Your task to perform on an android device: uninstall "Facebook" Image 0: 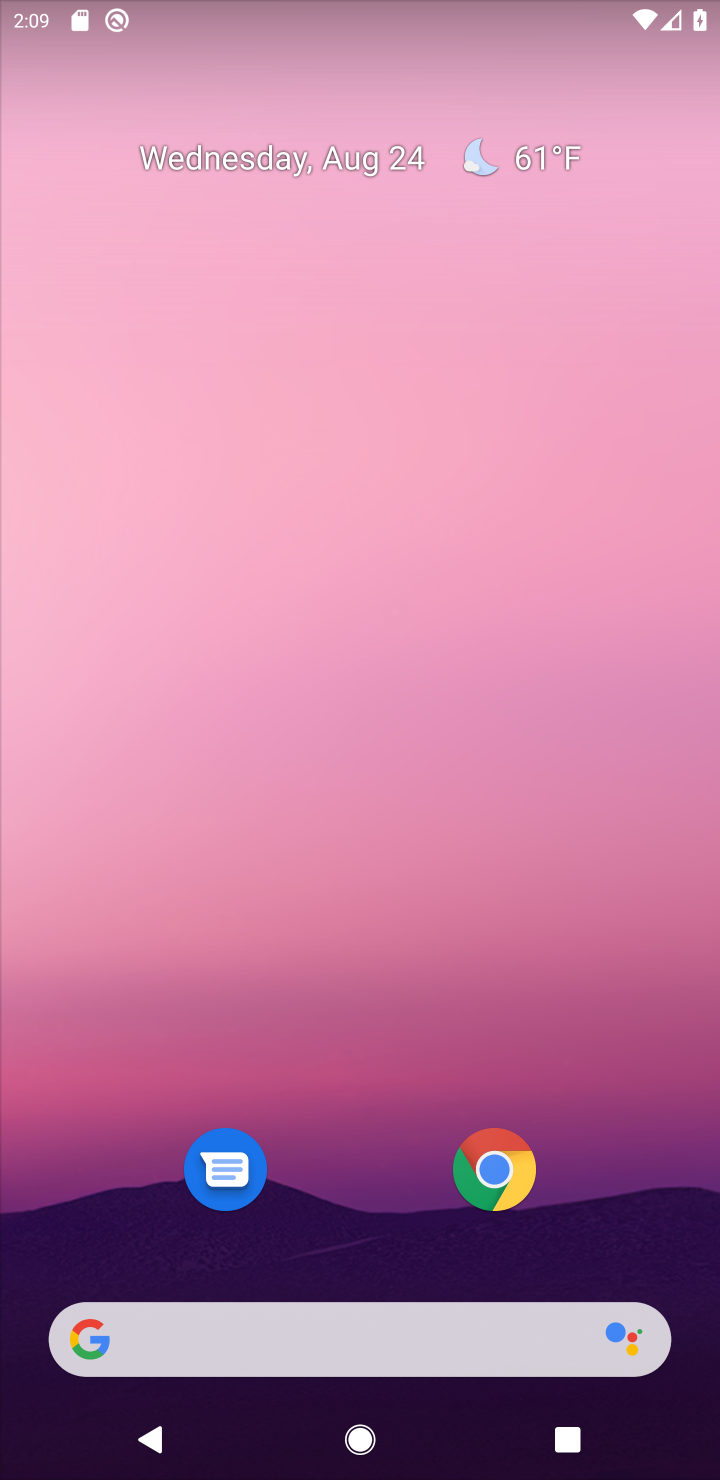
Step 0: drag from (363, 1210) to (512, 246)
Your task to perform on an android device: uninstall "Facebook" Image 1: 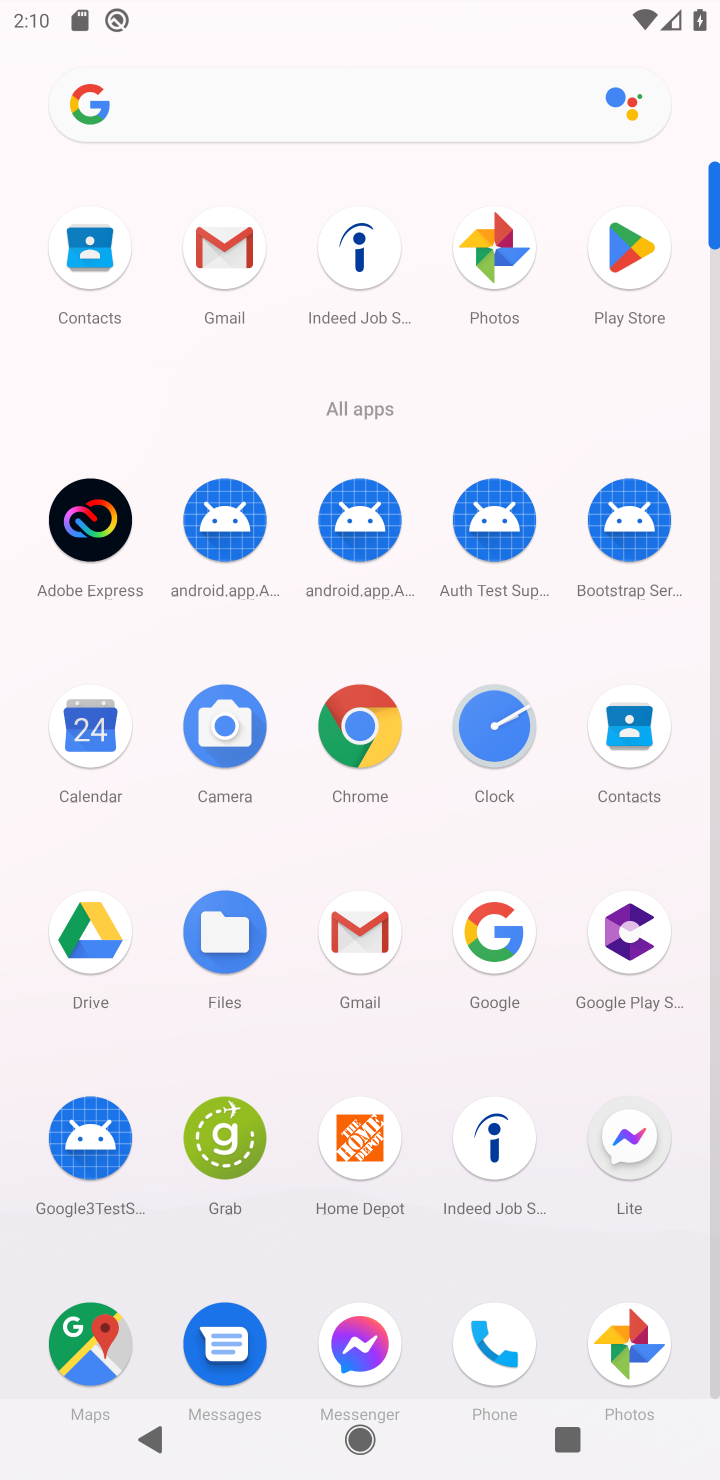
Step 1: click (616, 263)
Your task to perform on an android device: uninstall "Facebook" Image 2: 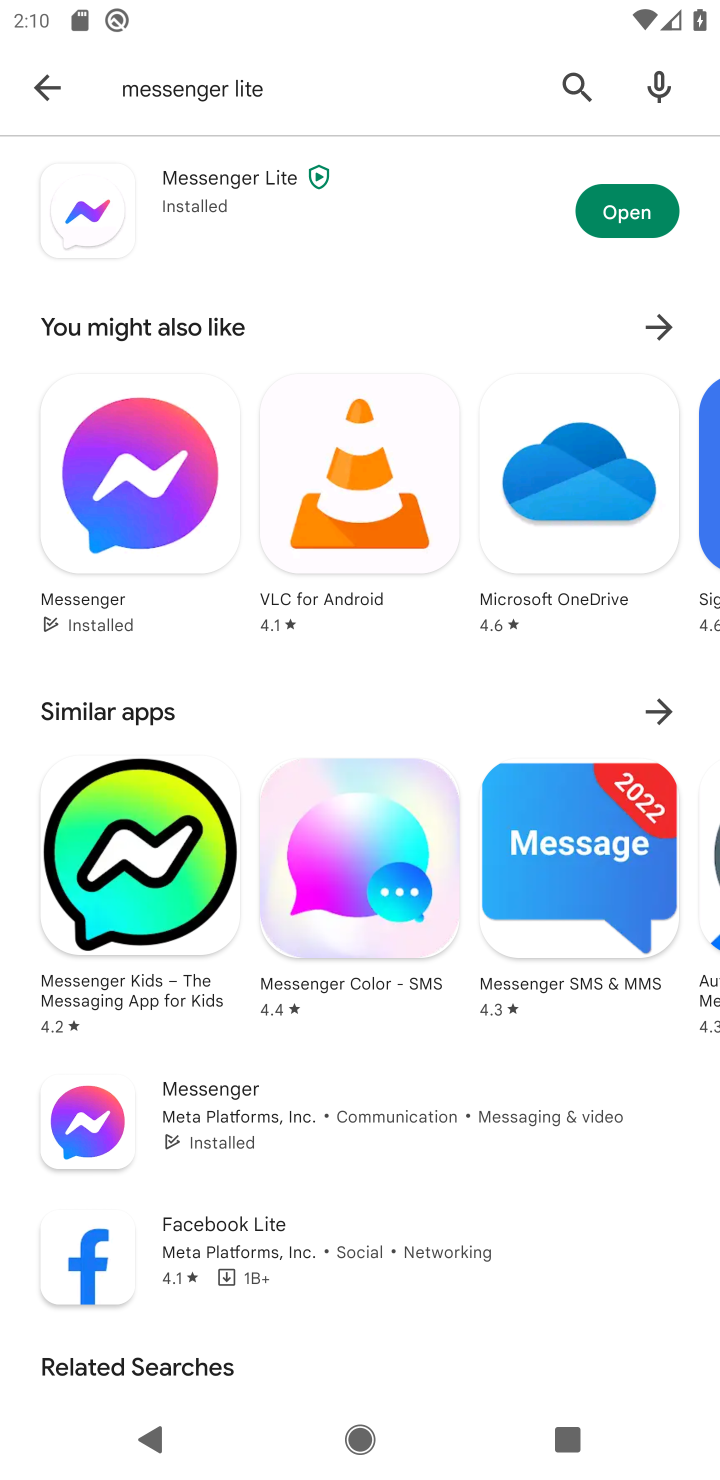
Step 2: click (578, 70)
Your task to perform on an android device: uninstall "Facebook" Image 3: 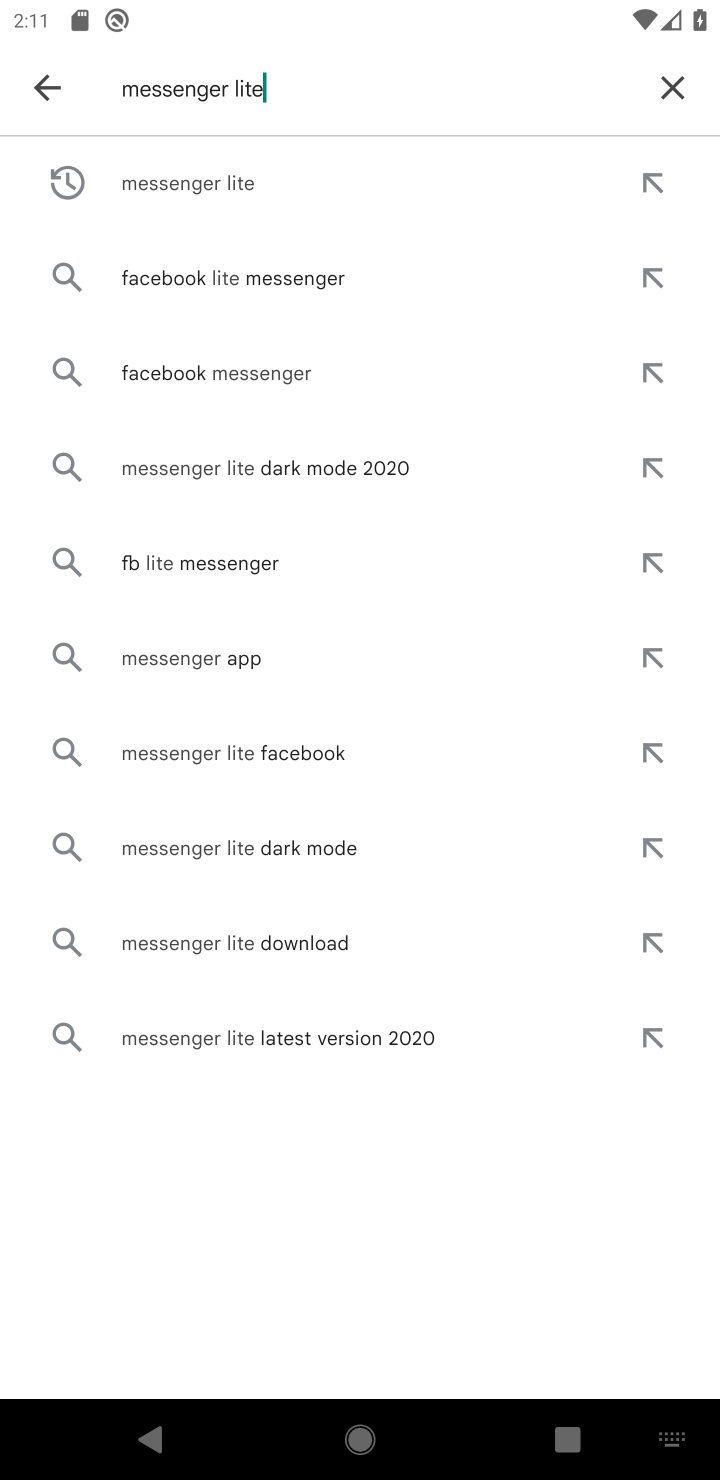
Step 3: click (682, 77)
Your task to perform on an android device: uninstall "Facebook" Image 4: 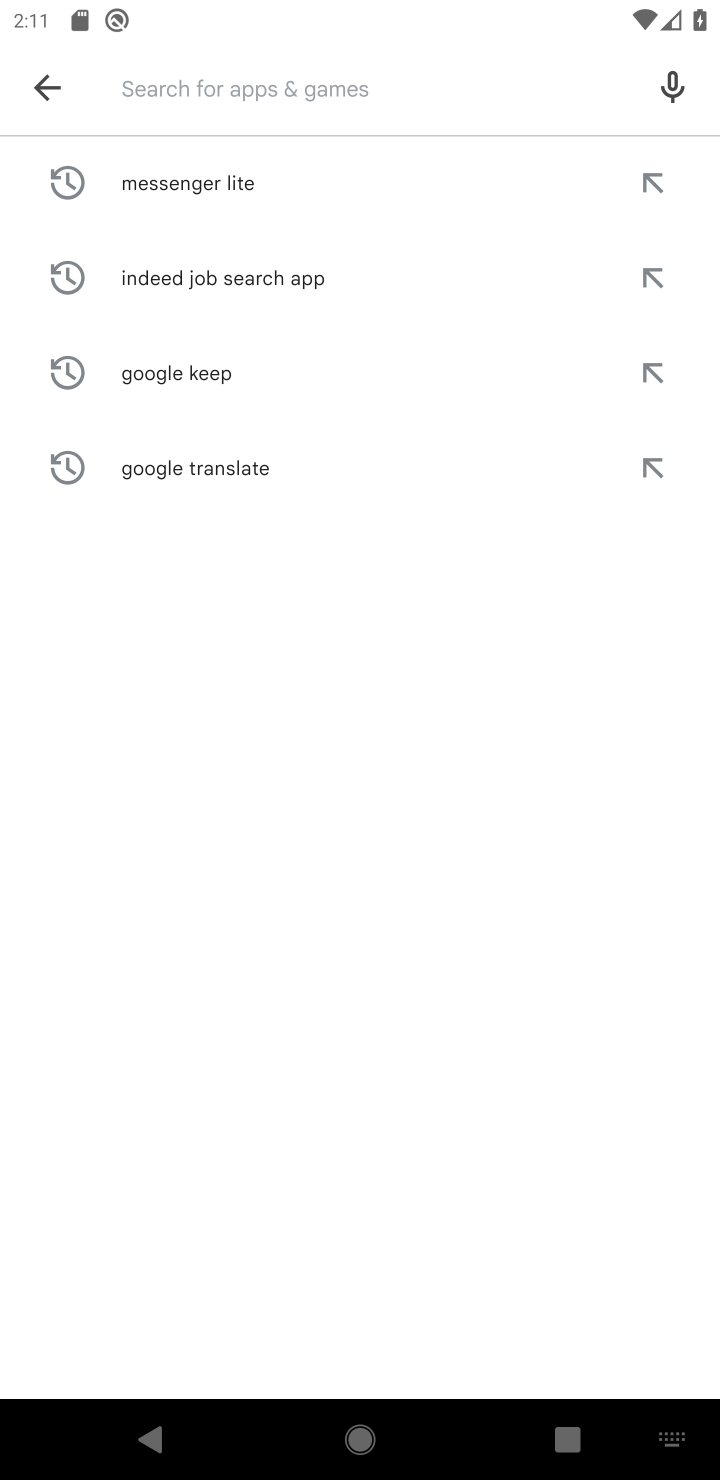
Step 4: type "Facebook"
Your task to perform on an android device: uninstall "Facebook" Image 5: 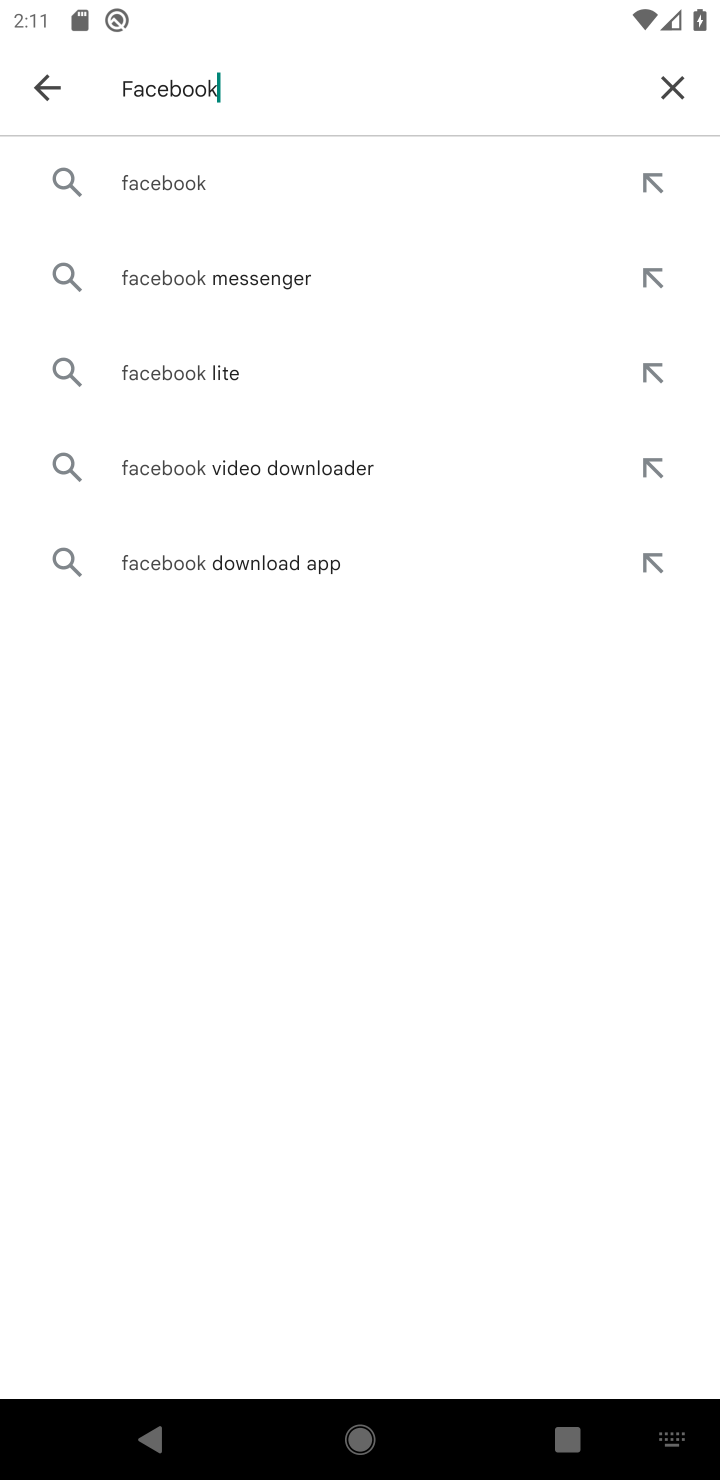
Step 5: click (239, 178)
Your task to perform on an android device: uninstall "Facebook" Image 6: 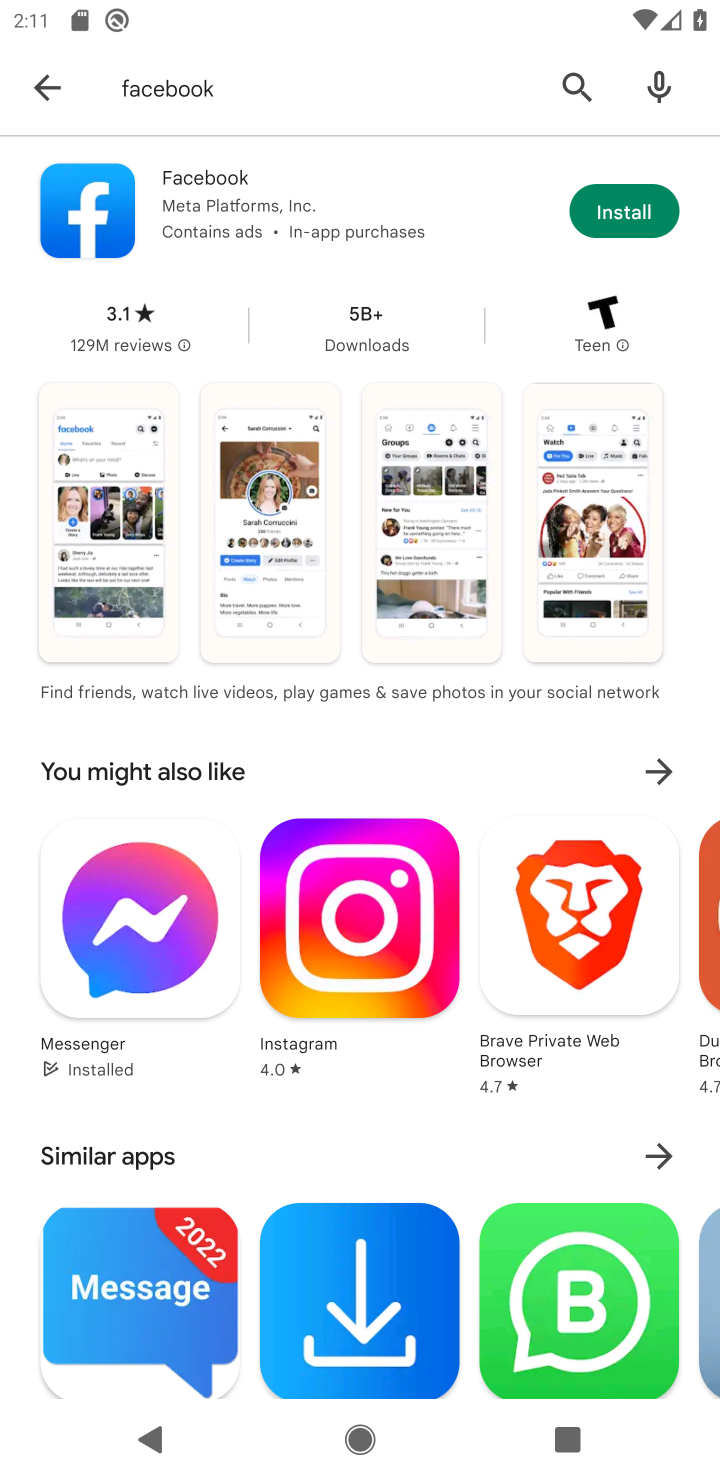
Step 6: task complete